Your task to perform on an android device: Open Chrome and go to settings Image 0: 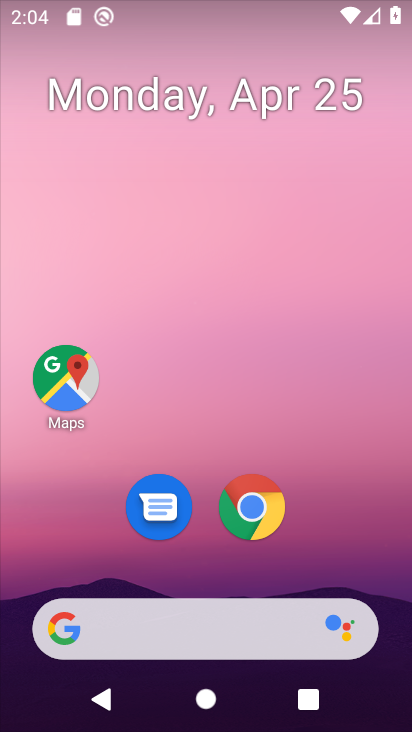
Step 0: drag from (223, 580) to (334, 184)
Your task to perform on an android device: Open Chrome and go to settings Image 1: 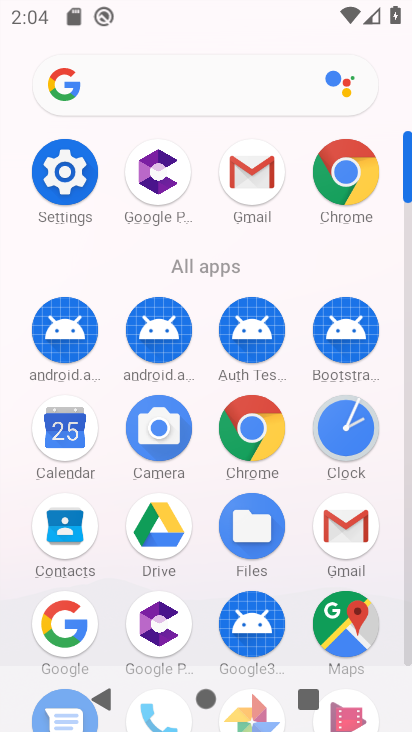
Step 1: click (268, 433)
Your task to perform on an android device: Open Chrome and go to settings Image 2: 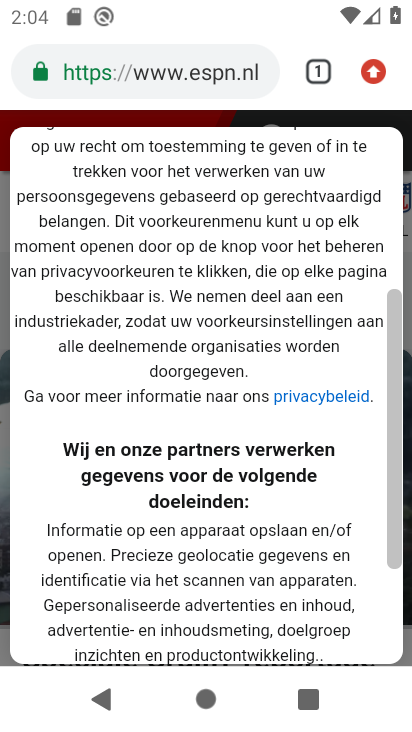
Step 2: drag from (375, 82) to (168, 505)
Your task to perform on an android device: Open Chrome and go to settings Image 3: 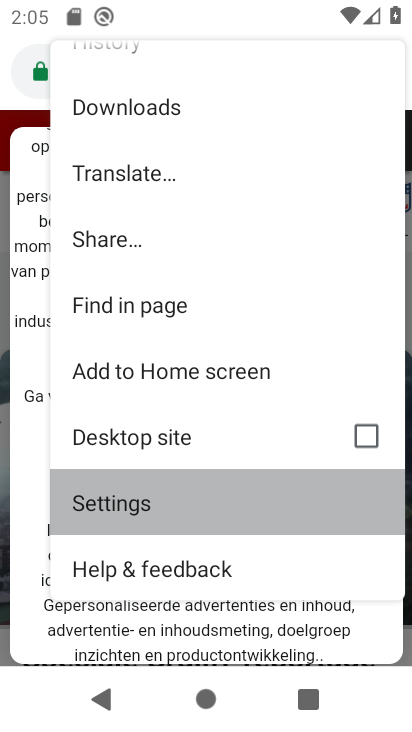
Step 3: click (168, 505)
Your task to perform on an android device: Open Chrome and go to settings Image 4: 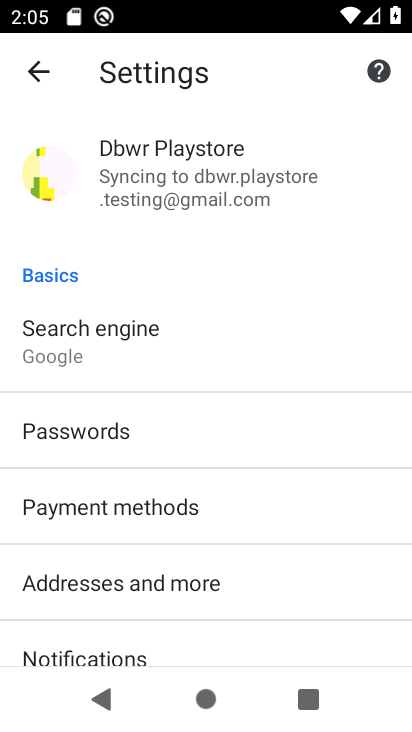
Step 4: task complete